Your task to perform on an android device: see creations saved in the google photos Image 0: 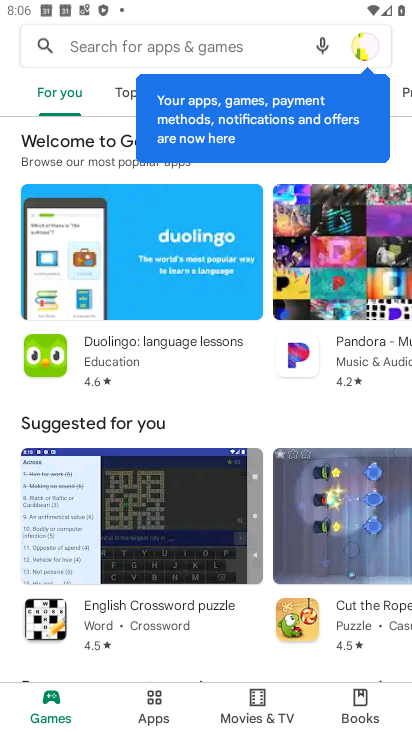
Step 0: press home button
Your task to perform on an android device: see creations saved in the google photos Image 1: 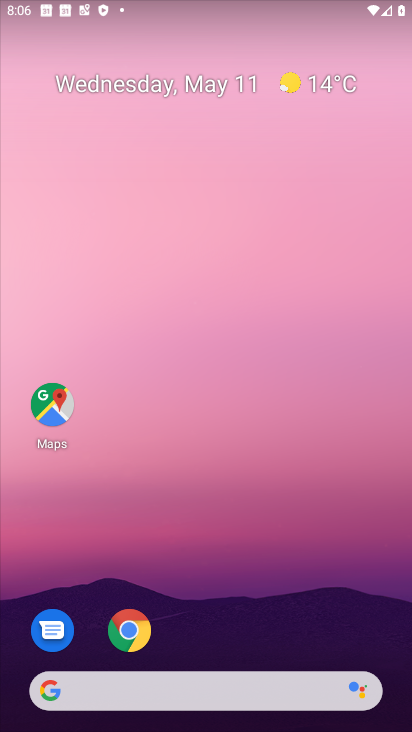
Step 1: drag from (209, 668) to (184, 137)
Your task to perform on an android device: see creations saved in the google photos Image 2: 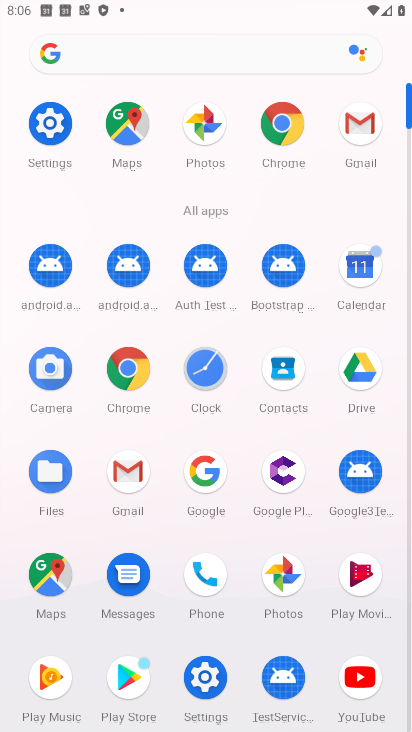
Step 2: click (205, 145)
Your task to perform on an android device: see creations saved in the google photos Image 3: 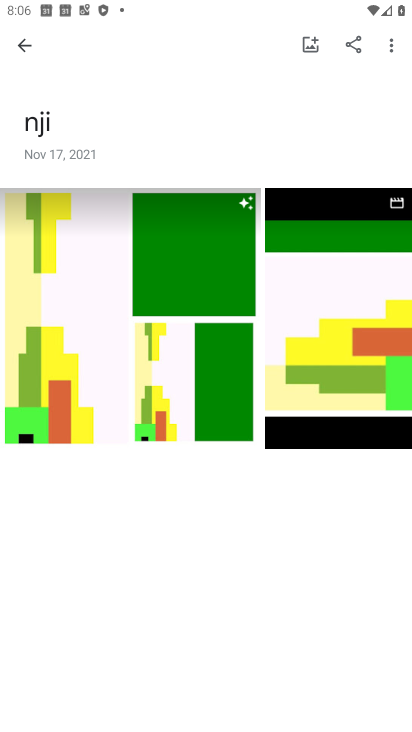
Step 3: click (18, 40)
Your task to perform on an android device: see creations saved in the google photos Image 4: 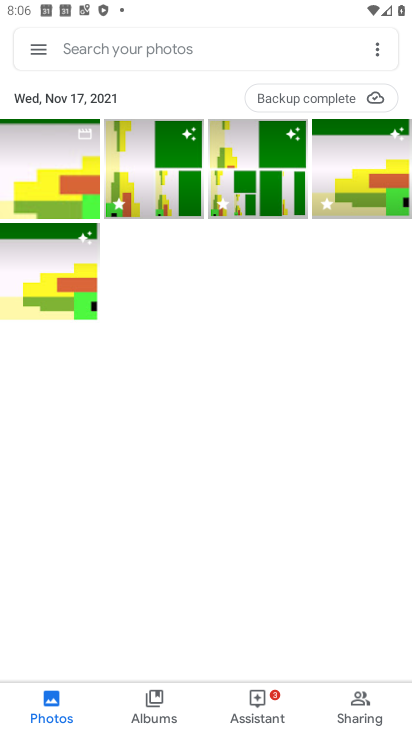
Step 4: click (35, 46)
Your task to perform on an android device: see creations saved in the google photos Image 5: 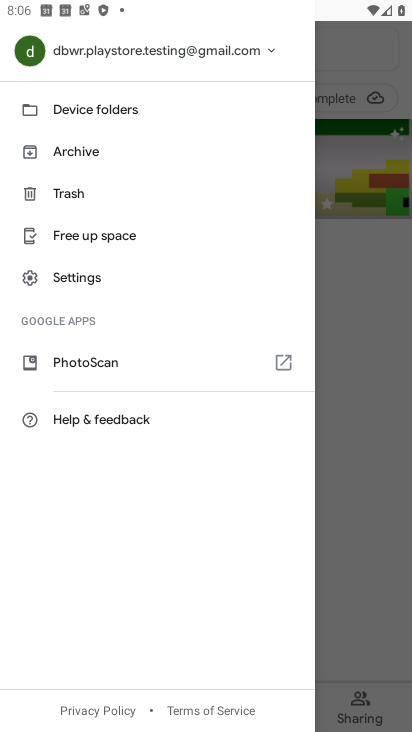
Step 5: click (351, 57)
Your task to perform on an android device: see creations saved in the google photos Image 6: 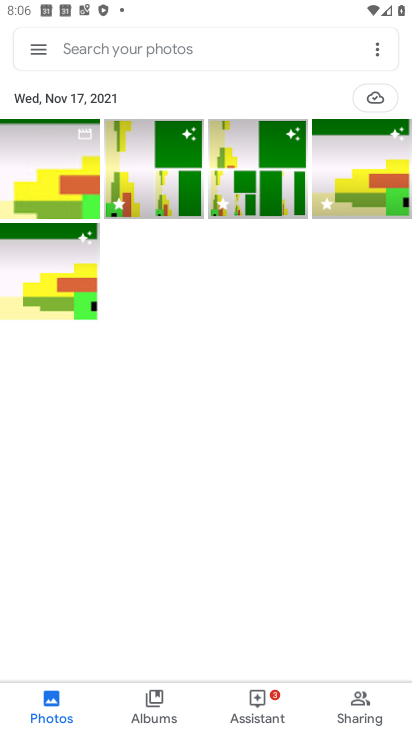
Step 6: click (198, 44)
Your task to perform on an android device: see creations saved in the google photos Image 7: 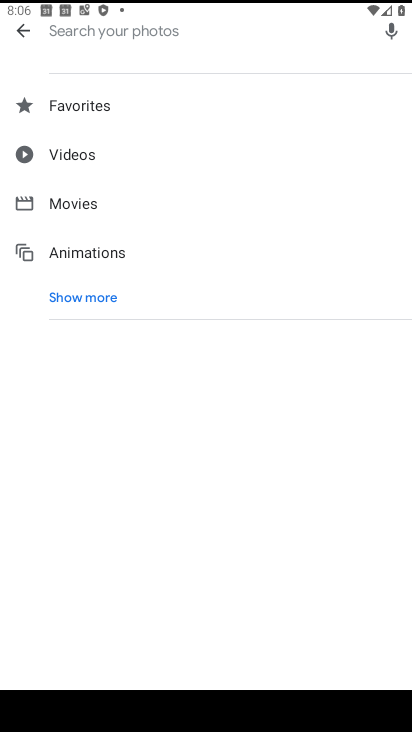
Step 7: click (51, 299)
Your task to perform on an android device: see creations saved in the google photos Image 8: 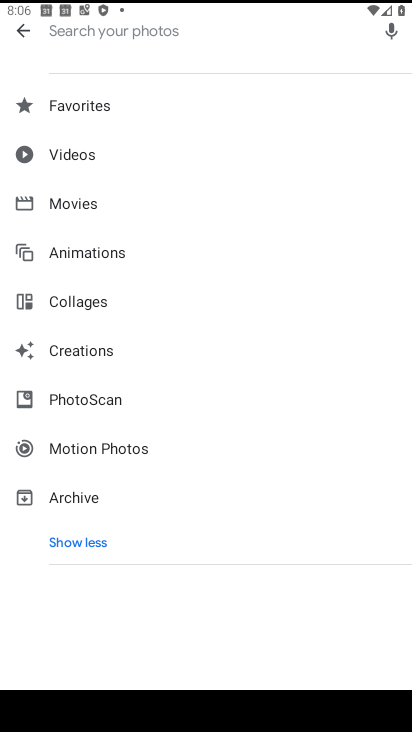
Step 8: click (69, 353)
Your task to perform on an android device: see creations saved in the google photos Image 9: 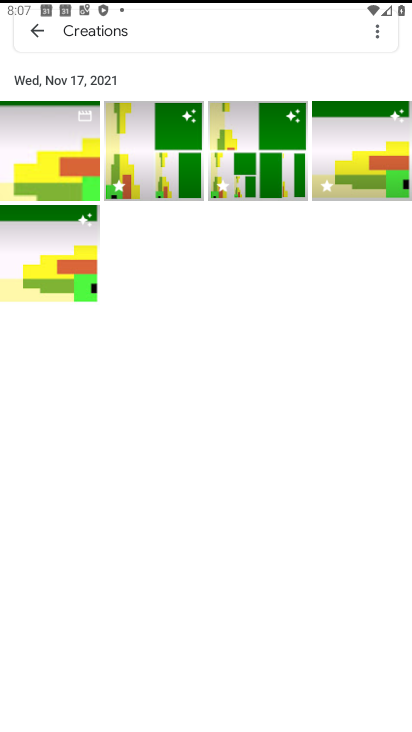
Step 9: task complete